Your task to perform on an android device: Add macbook air to the cart on costco Image 0: 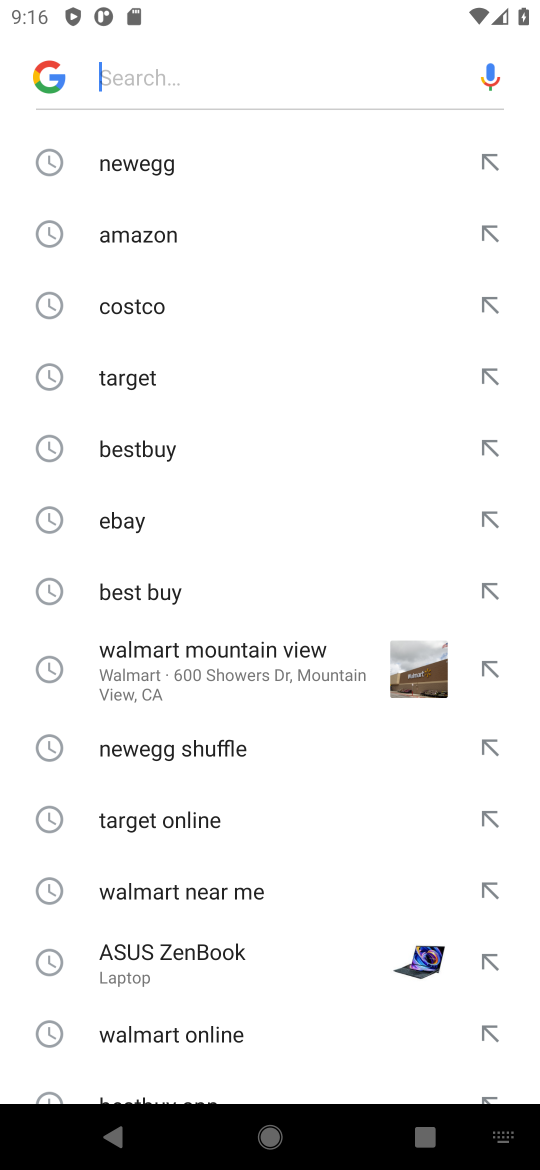
Step 0: click (274, 303)
Your task to perform on an android device: Add macbook air to the cart on costco Image 1: 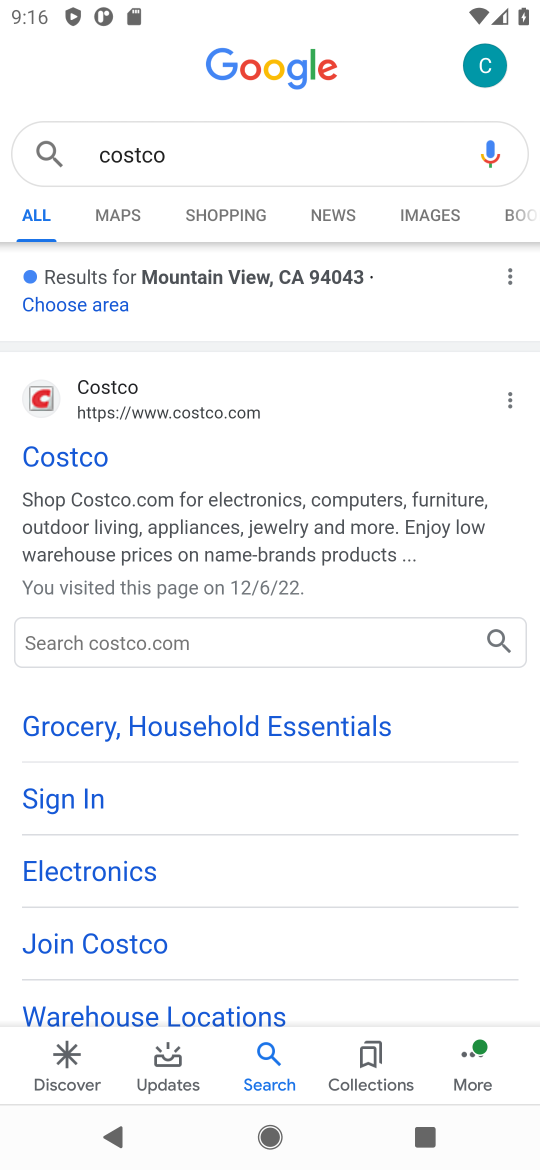
Step 1: click (82, 445)
Your task to perform on an android device: Add macbook air to the cart on costco Image 2: 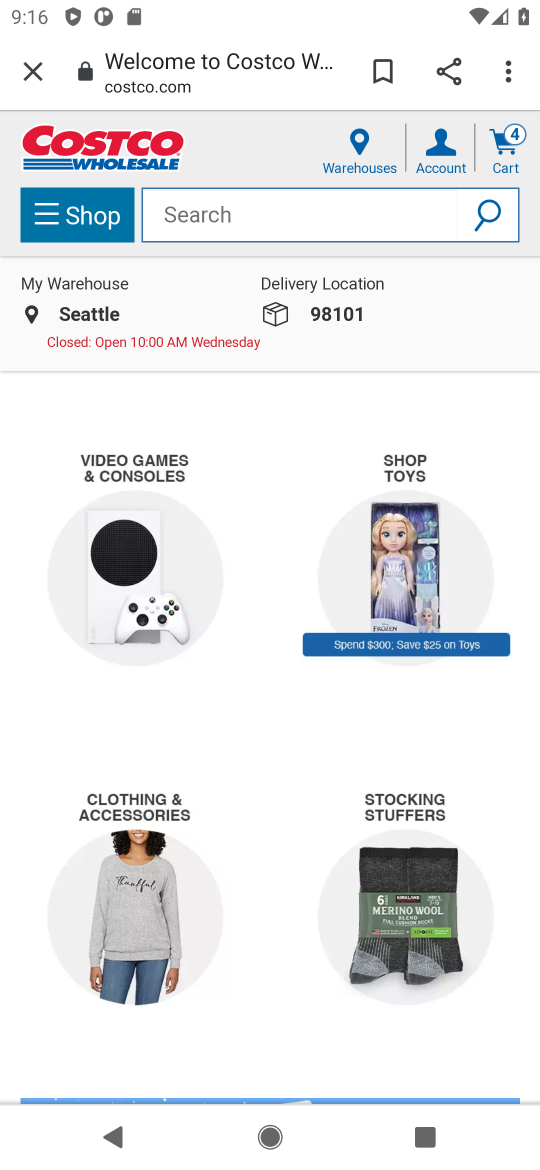
Step 2: click (202, 218)
Your task to perform on an android device: Add macbook air to the cart on costco Image 3: 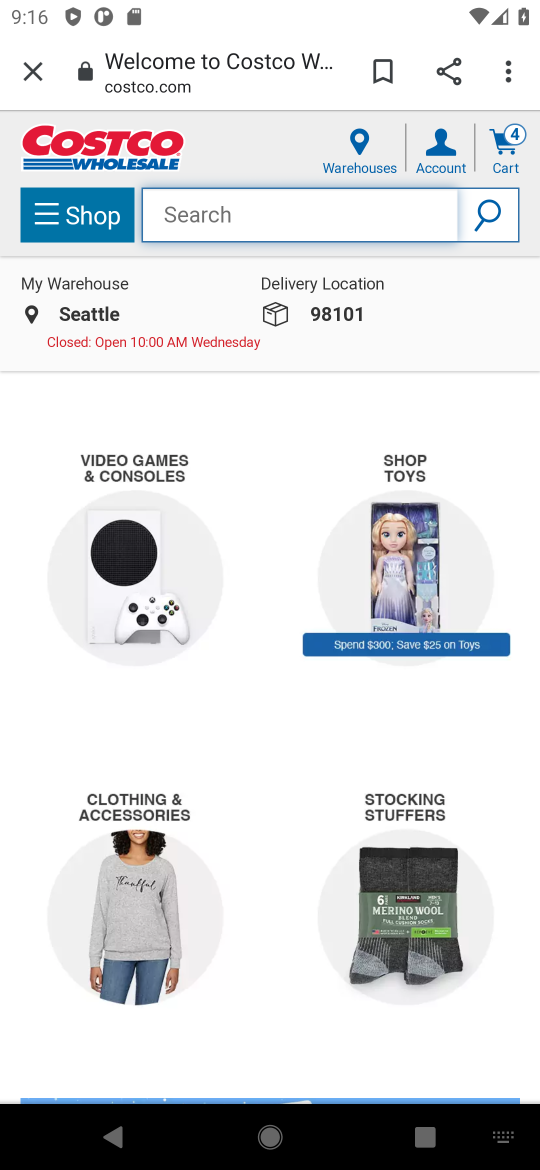
Step 3: type "macbook air"
Your task to perform on an android device: Add macbook air to the cart on costco Image 4: 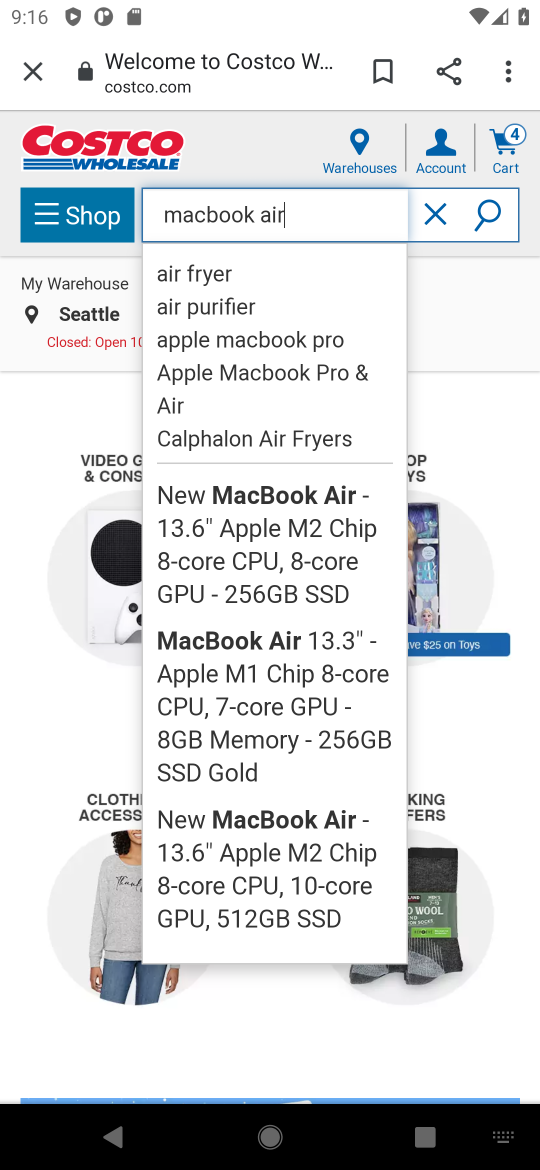
Step 4: click (491, 227)
Your task to perform on an android device: Add macbook air to the cart on costco Image 5: 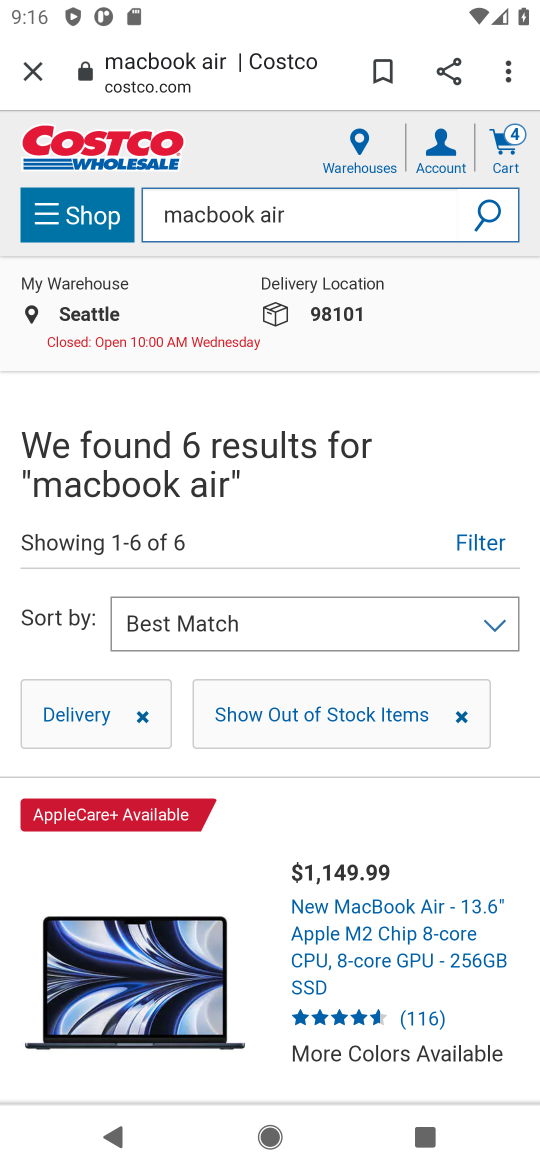
Step 5: drag from (251, 967) to (241, 646)
Your task to perform on an android device: Add macbook air to the cart on costco Image 6: 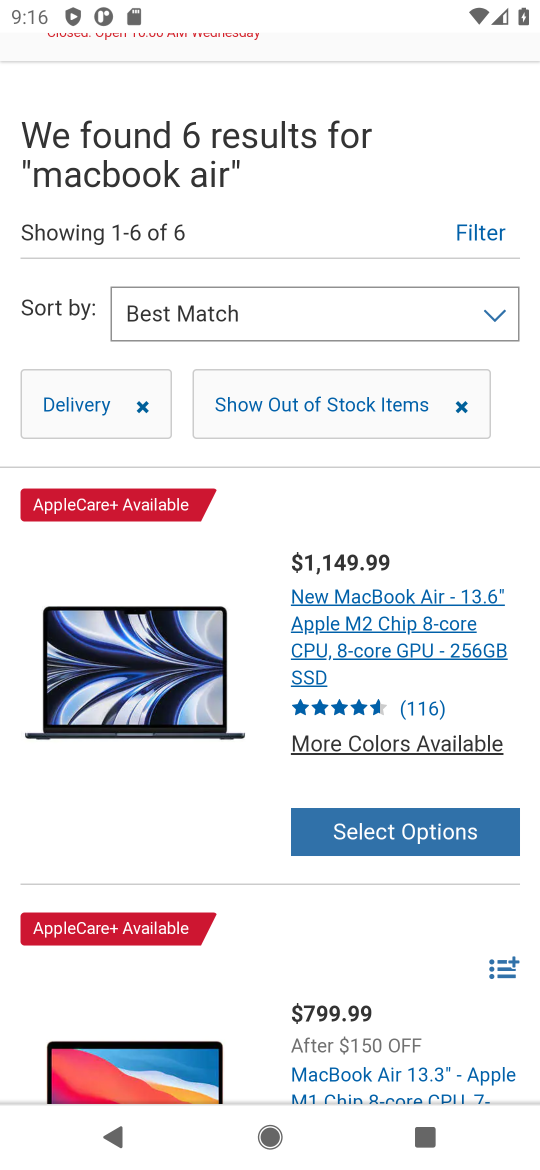
Step 6: click (354, 837)
Your task to perform on an android device: Add macbook air to the cart on costco Image 7: 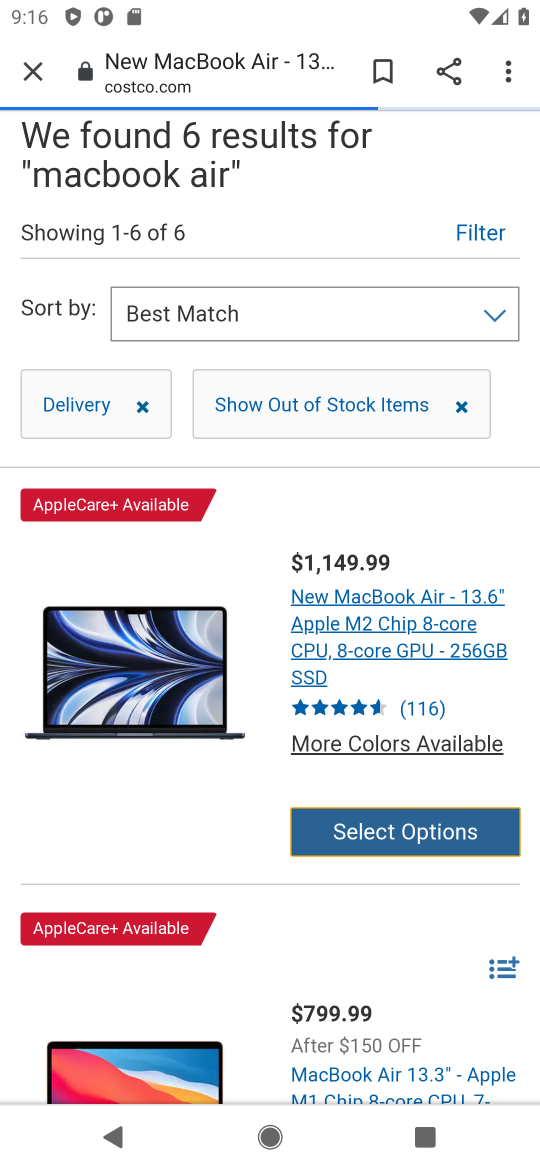
Step 7: task complete